Your task to perform on an android device: turn on the 24-hour format for clock Image 0: 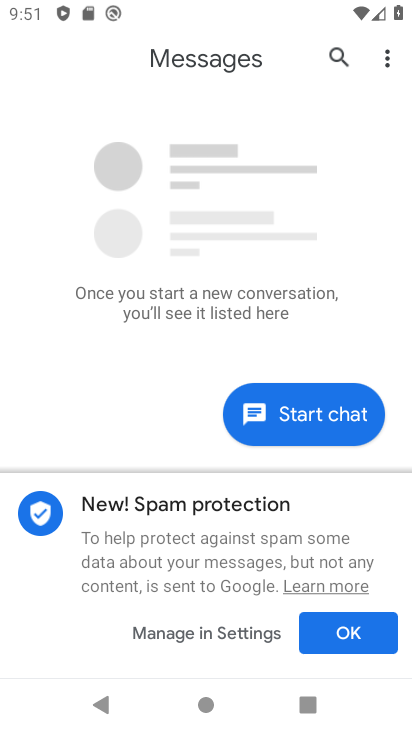
Step 0: click (146, 549)
Your task to perform on an android device: turn on the 24-hour format for clock Image 1: 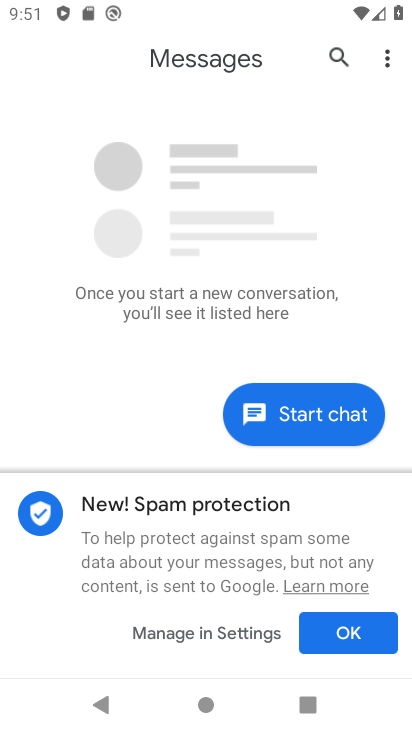
Step 1: press home button
Your task to perform on an android device: turn on the 24-hour format for clock Image 2: 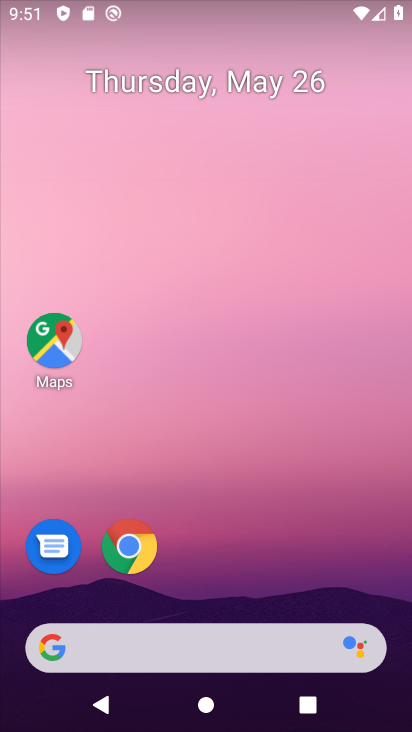
Step 2: drag from (230, 612) to (313, 180)
Your task to perform on an android device: turn on the 24-hour format for clock Image 3: 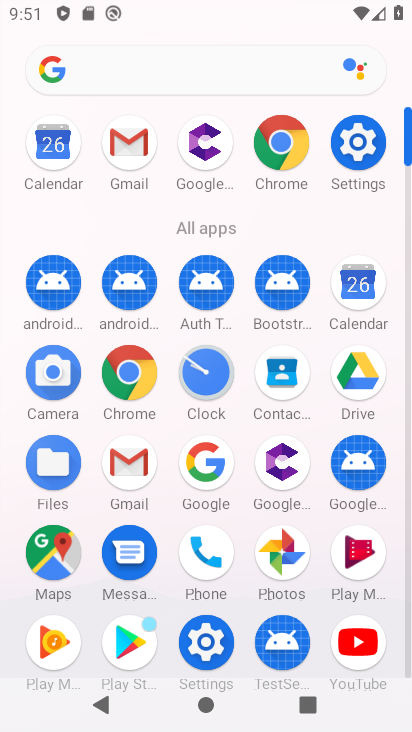
Step 3: click (185, 360)
Your task to perform on an android device: turn on the 24-hour format for clock Image 4: 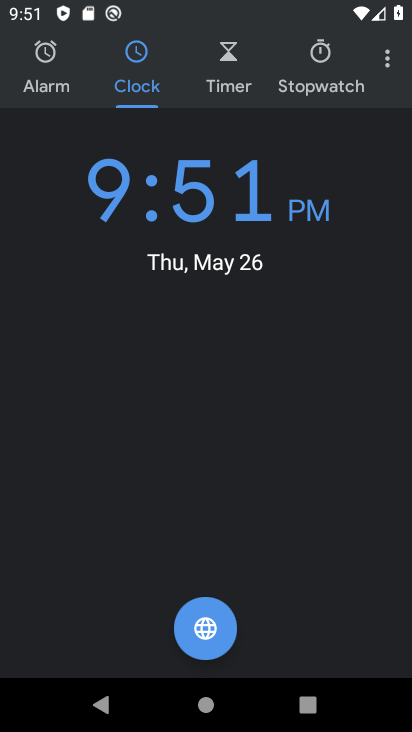
Step 4: click (385, 53)
Your task to perform on an android device: turn on the 24-hour format for clock Image 5: 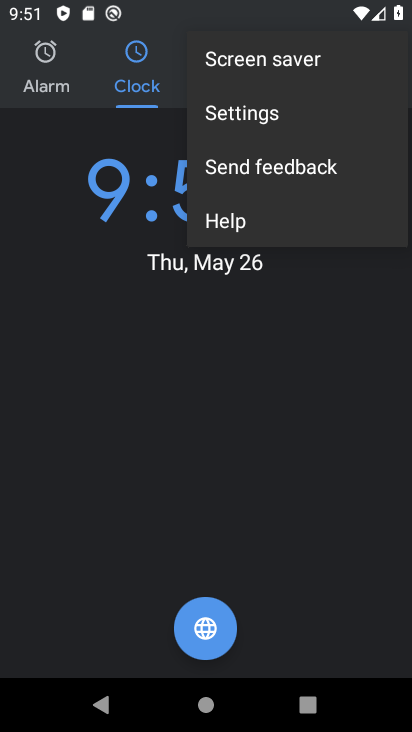
Step 5: click (282, 121)
Your task to perform on an android device: turn on the 24-hour format for clock Image 6: 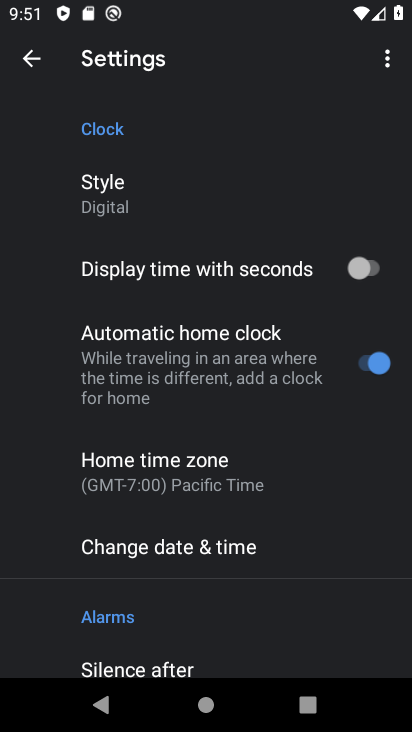
Step 6: click (239, 548)
Your task to perform on an android device: turn on the 24-hour format for clock Image 7: 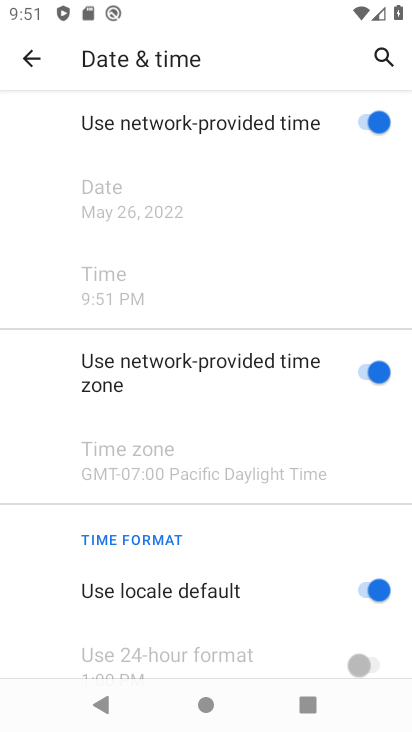
Step 7: click (368, 662)
Your task to perform on an android device: turn on the 24-hour format for clock Image 8: 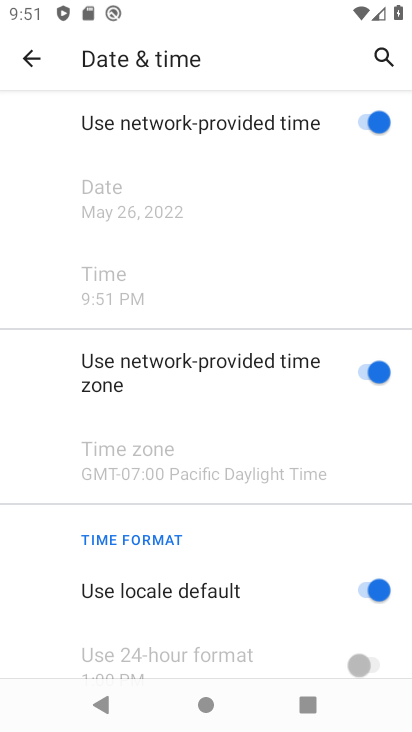
Step 8: drag from (368, 663) to (403, 656)
Your task to perform on an android device: turn on the 24-hour format for clock Image 9: 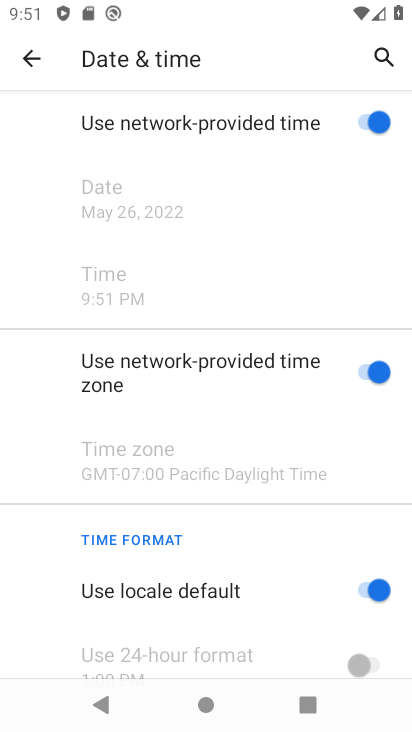
Step 9: click (381, 588)
Your task to perform on an android device: turn on the 24-hour format for clock Image 10: 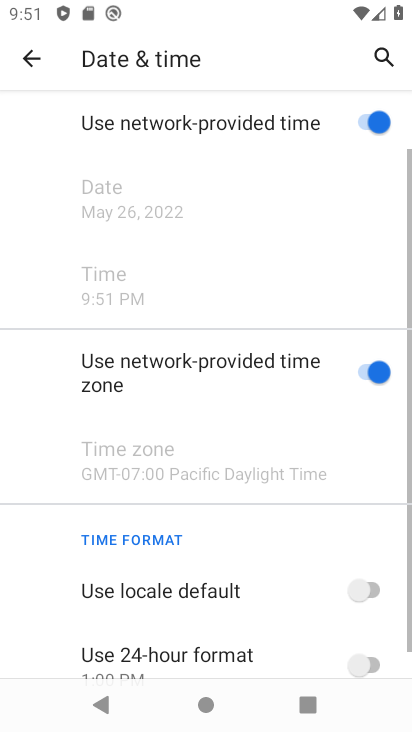
Step 10: click (371, 665)
Your task to perform on an android device: turn on the 24-hour format for clock Image 11: 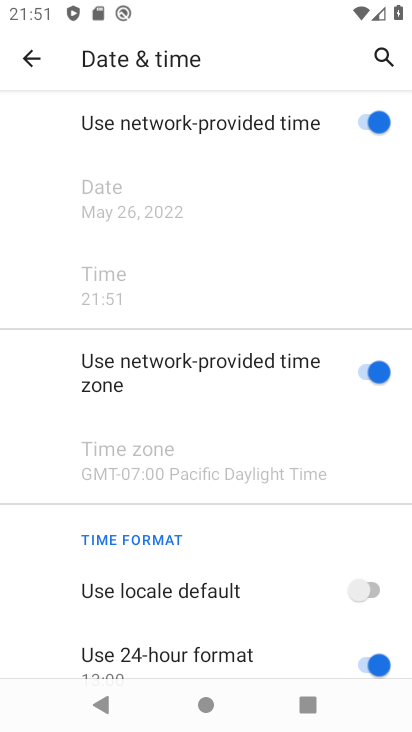
Step 11: task complete